Your task to perform on an android device: set the stopwatch Image 0: 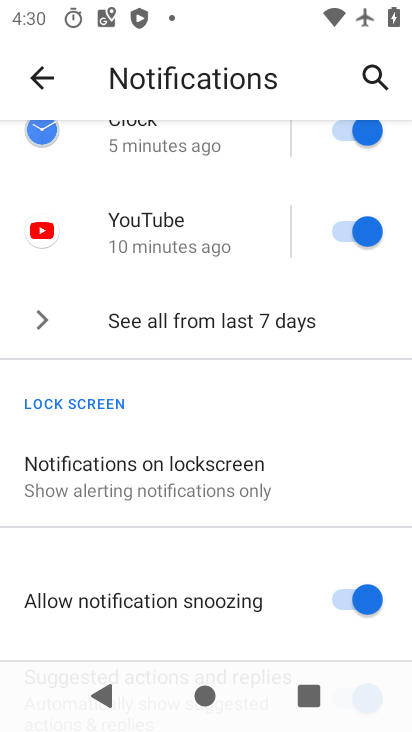
Step 0: press home button
Your task to perform on an android device: set the stopwatch Image 1: 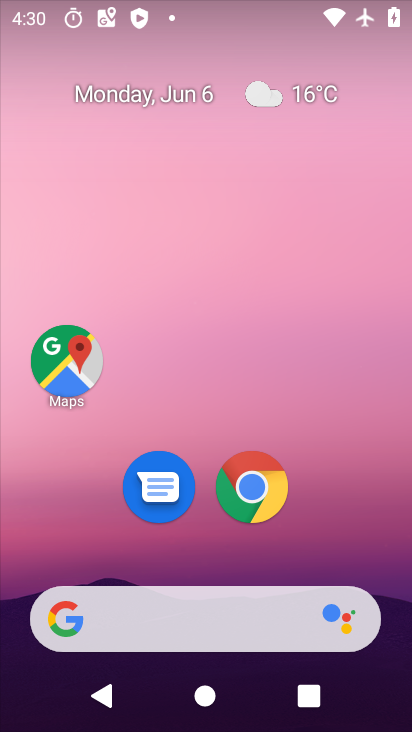
Step 1: drag from (338, 361) to (329, 52)
Your task to perform on an android device: set the stopwatch Image 2: 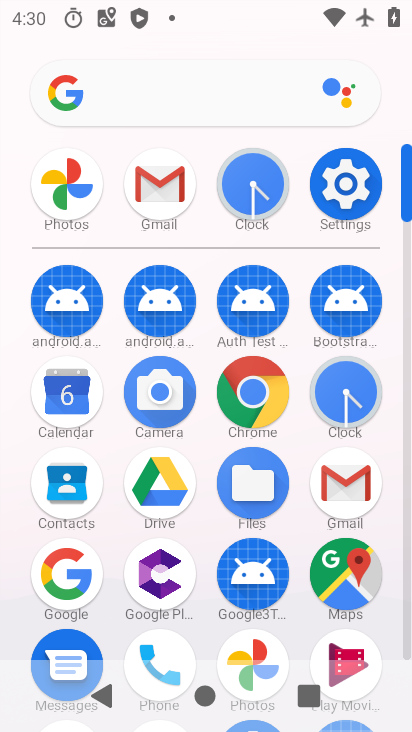
Step 2: click (260, 203)
Your task to perform on an android device: set the stopwatch Image 3: 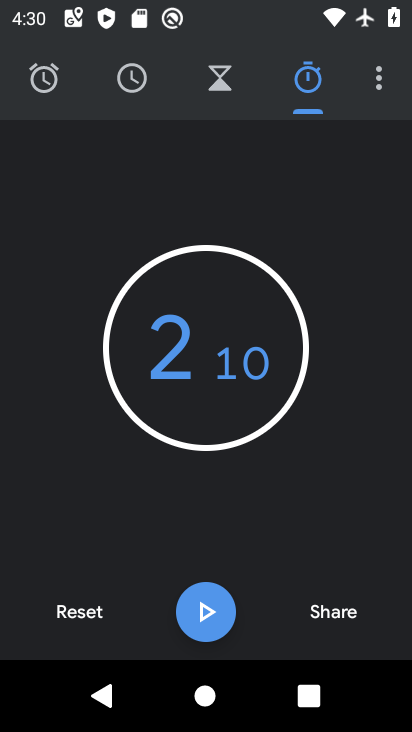
Step 3: task complete